Your task to perform on an android device: toggle notification dots Image 0: 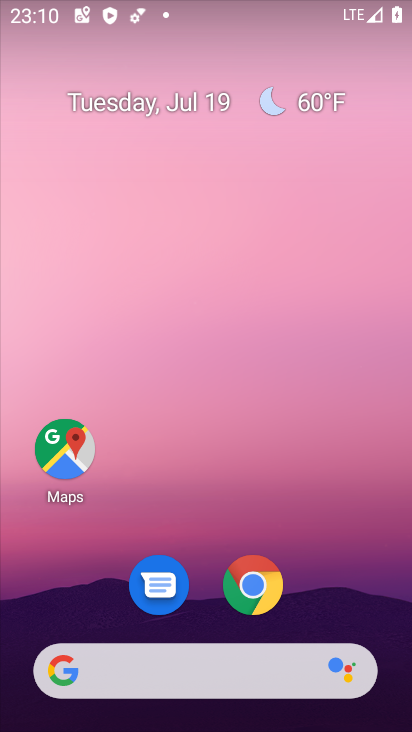
Step 0: drag from (212, 488) to (270, 0)
Your task to perform on an android device: toggle notification dots Image 1: 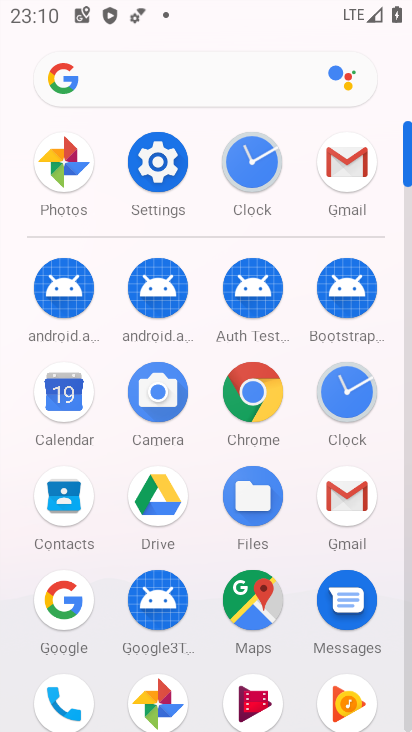
Step 1: click (168, 168)
Your task to perform on an android device: toggle notification dots Image 2: 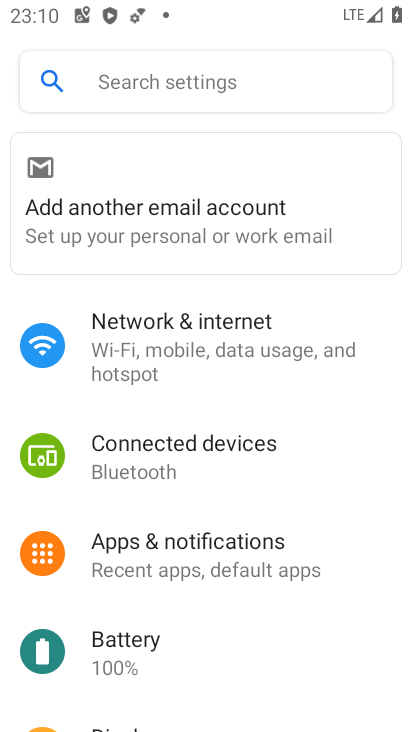
Step 2: click (189, 550)
Your task to perform on an android device: toggle notification dots Image 3: 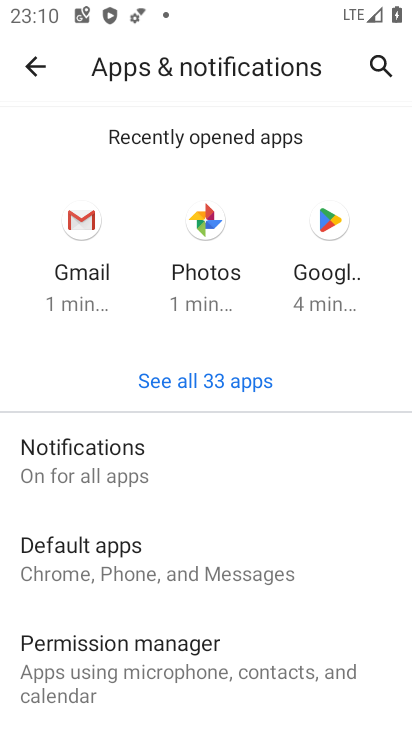
Step 3: click (129, 465)
Your task to perform on an android device: toggle notification dots Image 4: 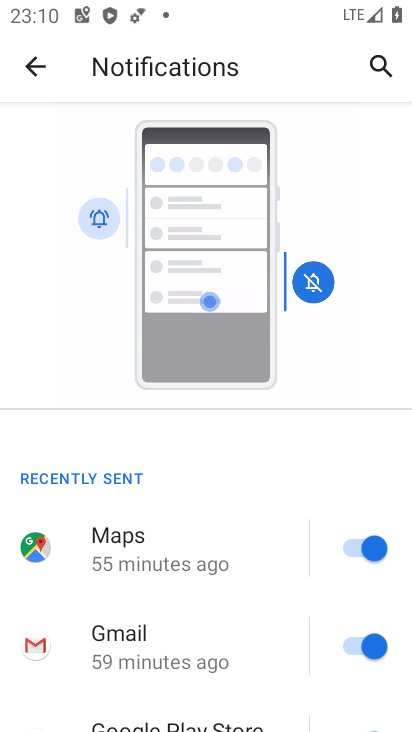
Step 4: drag from (220, 587) to (296, 203)
Your task to perform on an android device: toggle notification dots Image 5: 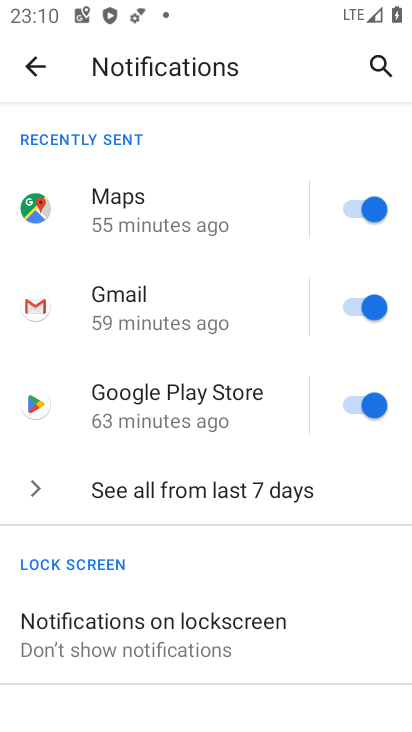
Step 5: drag from (203, 567) to (227, 222)
Your task to perform on an android device: toggle notification dots Image 6: 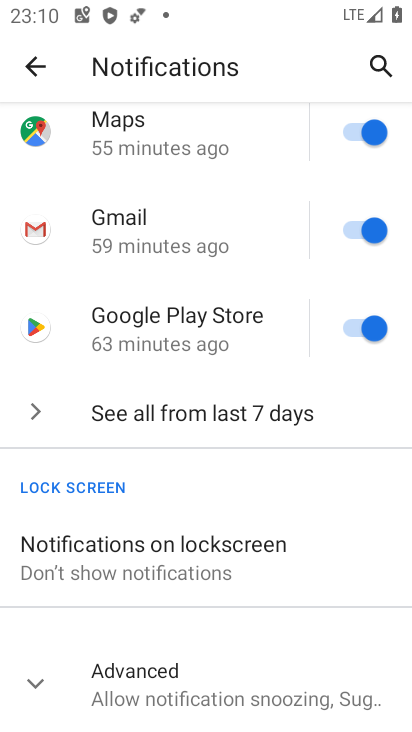
Step 6: click (32, 686)
Your task to perform on an android device: toggle notification dots Image 7: 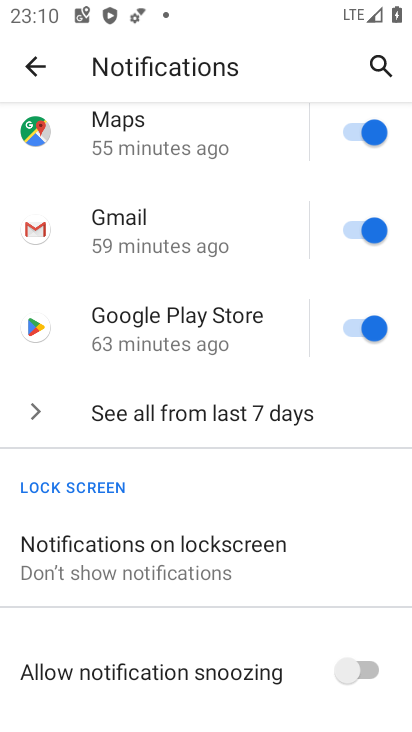
Step 7: drag from (242, 583) to (280, 187)
Your task to perform on an android device: toggle notification dots Image 8: 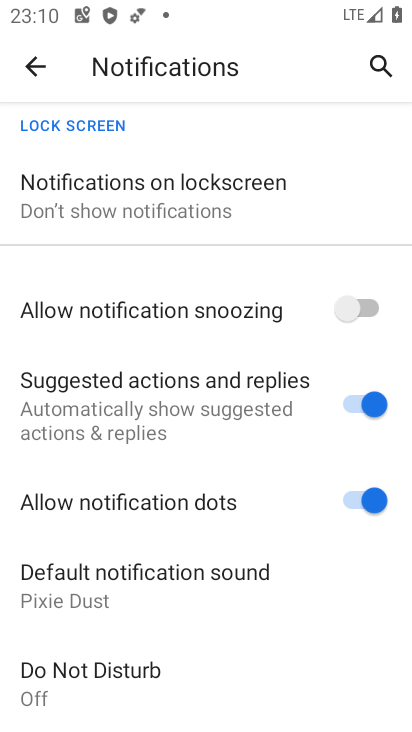
Step 8: click (354, 499)
Your task to perform on an android device: toggle notification dots Image 9: 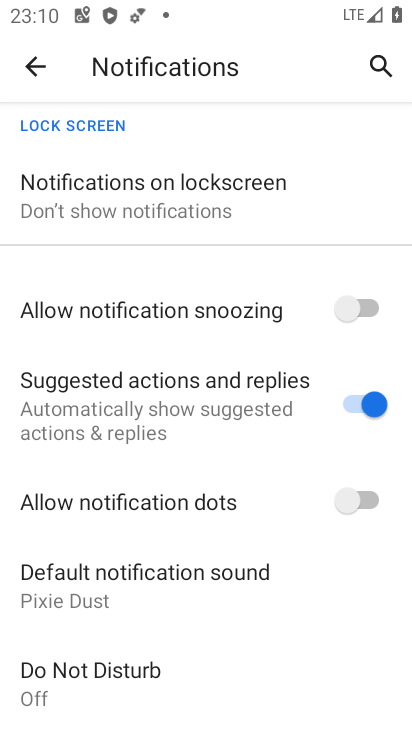
Step 9: task complete